Your task to perform on an android device: check storage Image 0: 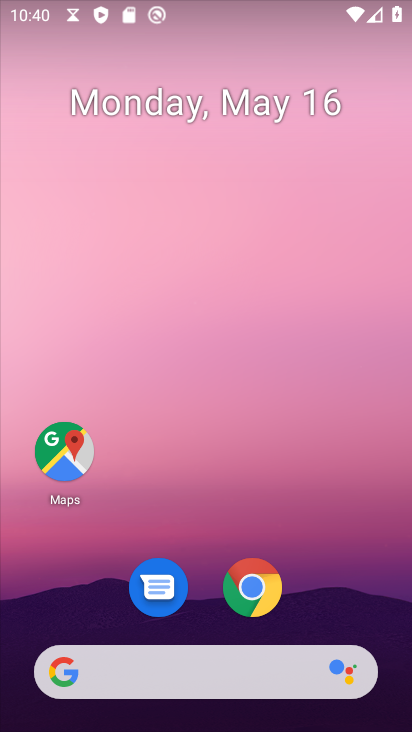
Step 0: drag from (319, 570) to (282, 706)
Your task to perform on an android device: check storage Image 1: 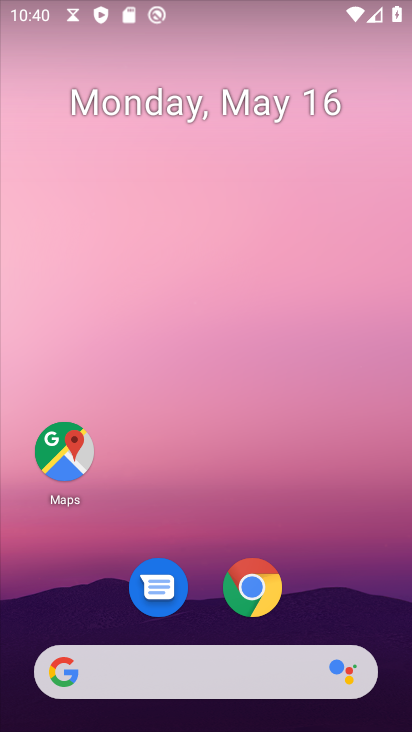
Step 1: drag from (8, 699) to (2, 50)
Your task to perform on an android device: check storage Image 2: 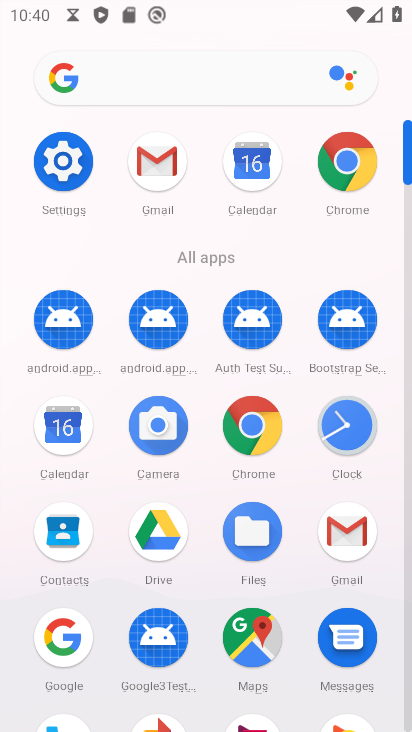
Step 2: click (61, 159)
Your task to perform on an android device: check storage Image 3: 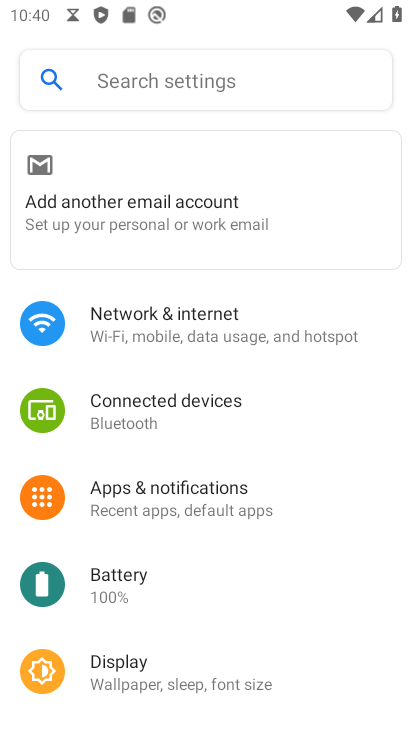
Step 3: drag from (313, 560) to (330, 147)
Your task to perform on an android device: check storage Image 4: 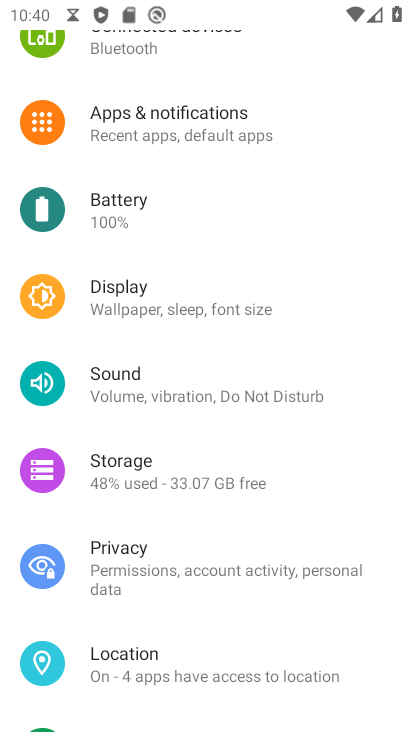
Step 4: click (154, 465)
Your task to perform on an android device: check storage Image 5: 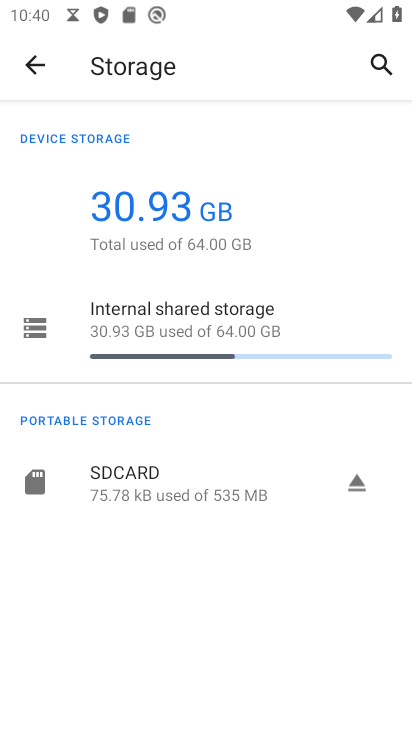
Step 5: task complete